Your task to perform on an android device: Clear all items from cart on target. Image 0: 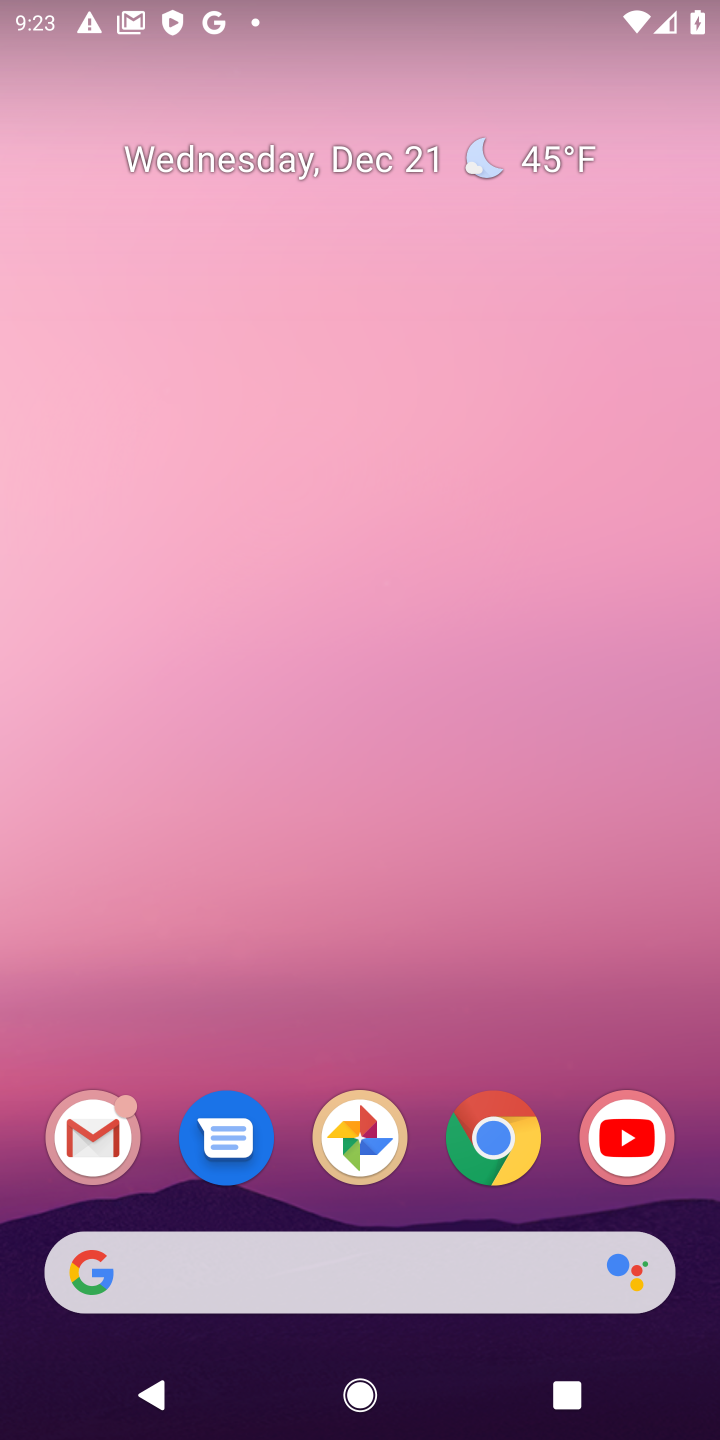
Step 0: click (498, 1152)
Your task to perform on an android device: Clear all items from cart on target. Image 1: 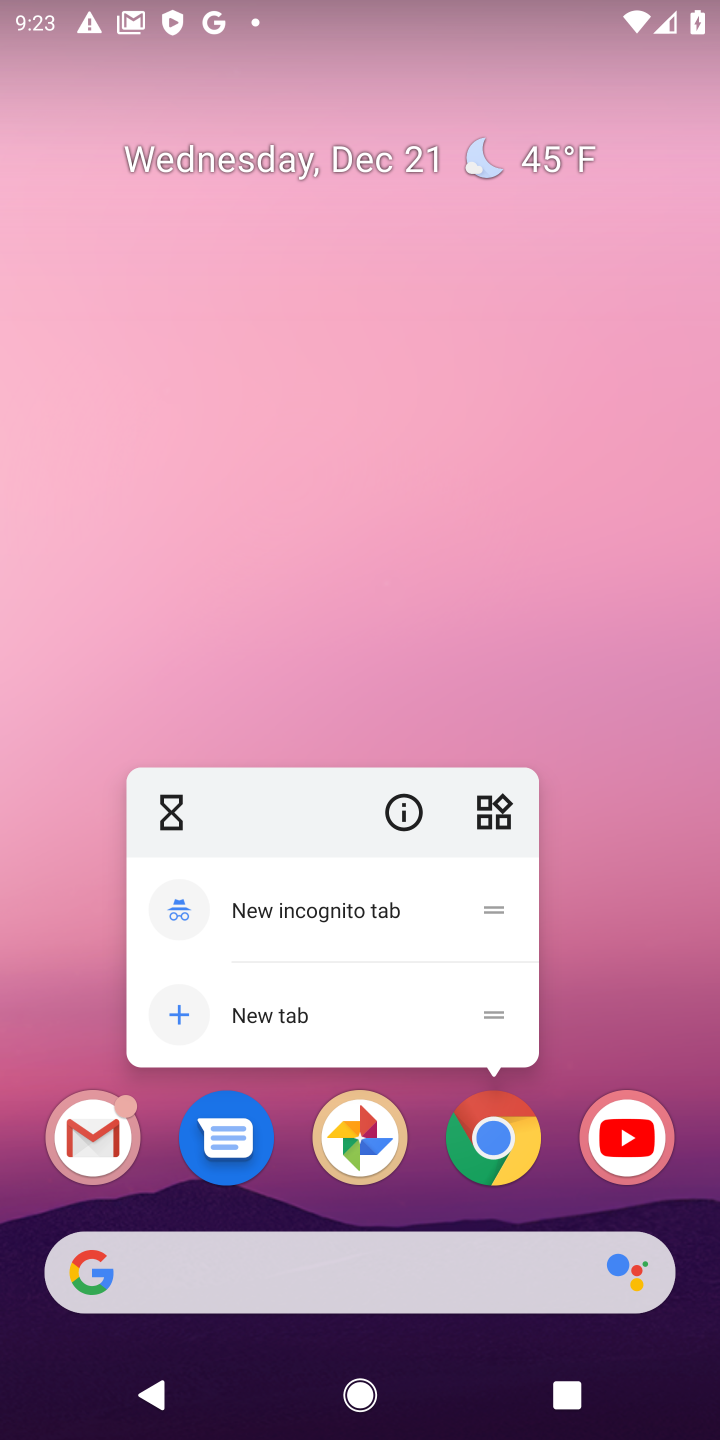
Step 1: click (498, 1152)
Your task to perform on an android device: Clear all items from cart on target. Image 2: 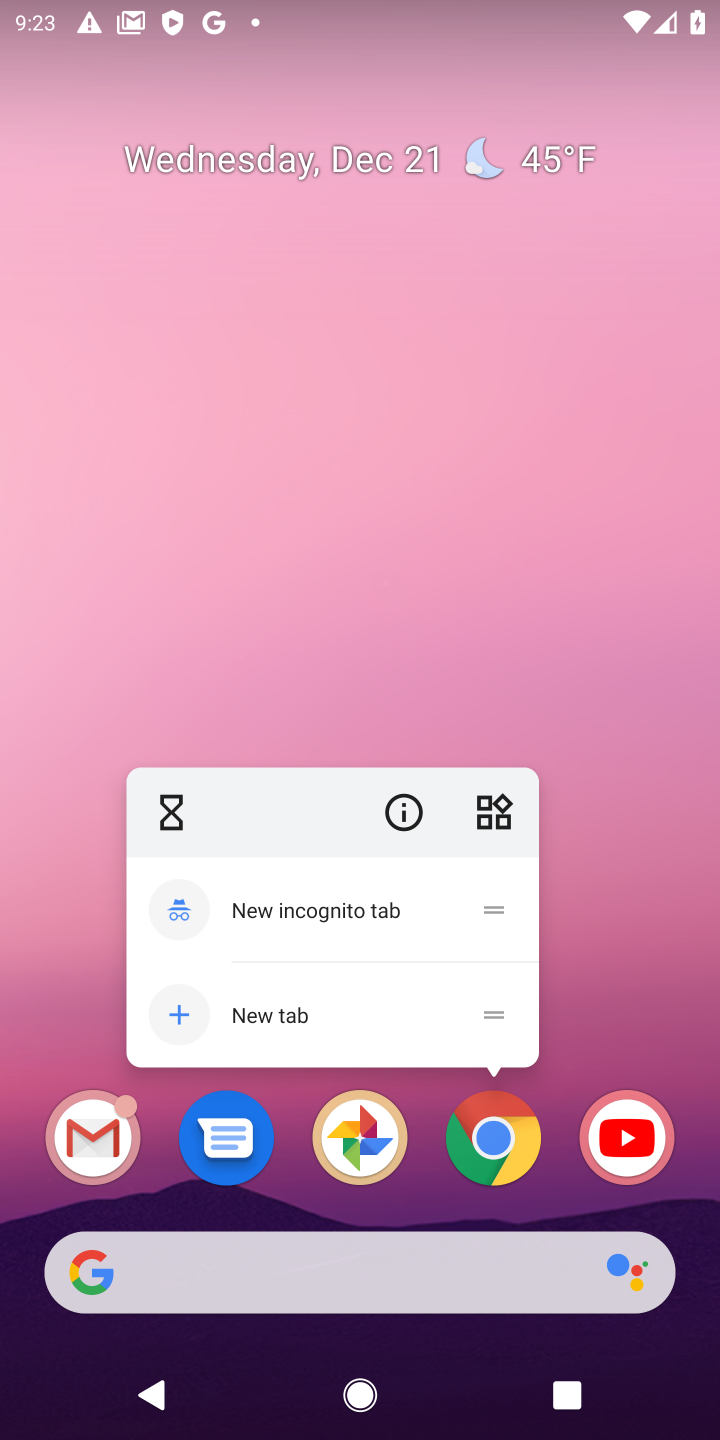
Step 2: click (498, 1152)
Your task to perform on an android device: Clear all items from cart on target. Image 3: 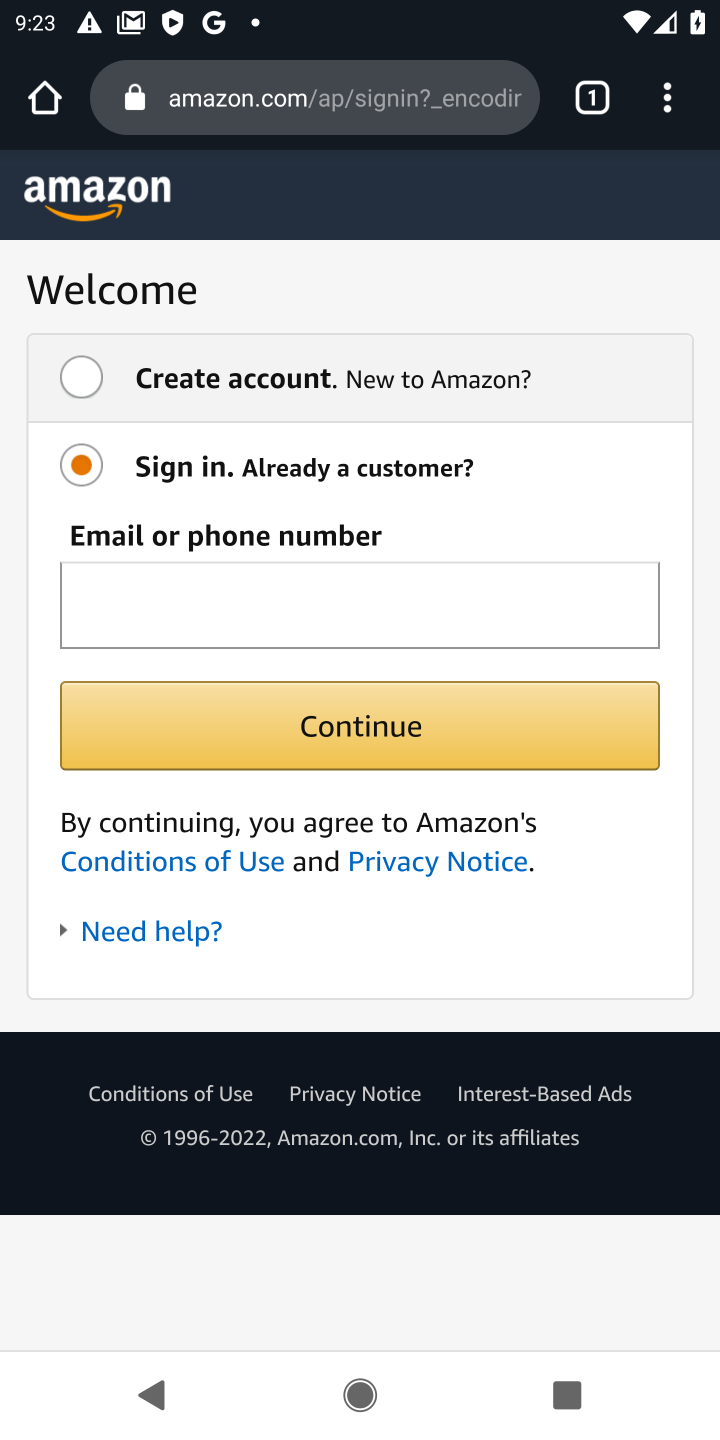
Step 3: click (235, 104)
Your task to perform on an android device: Clear all items from cart on target. Image 4: 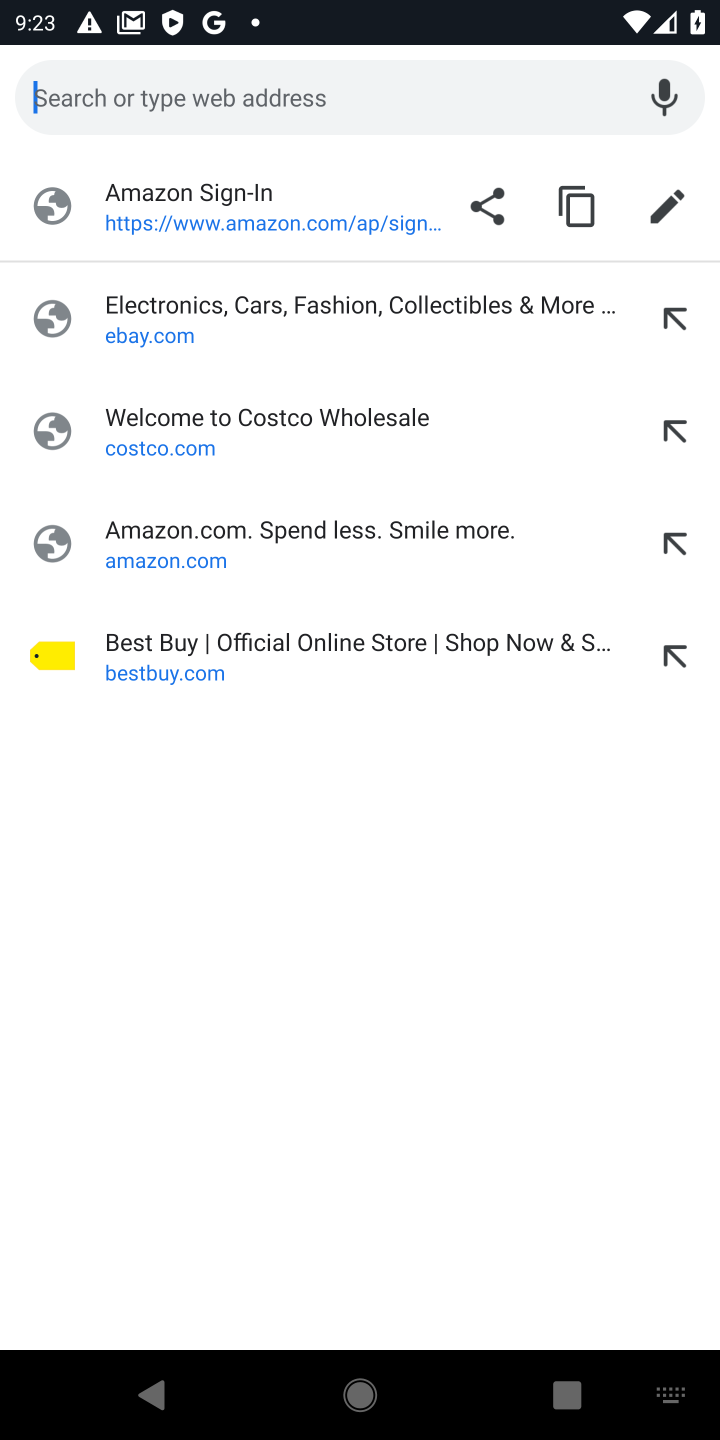
Step 4: type "target.com"
Your task to perform on an android device: Clear all items from cart on target. Image 5: 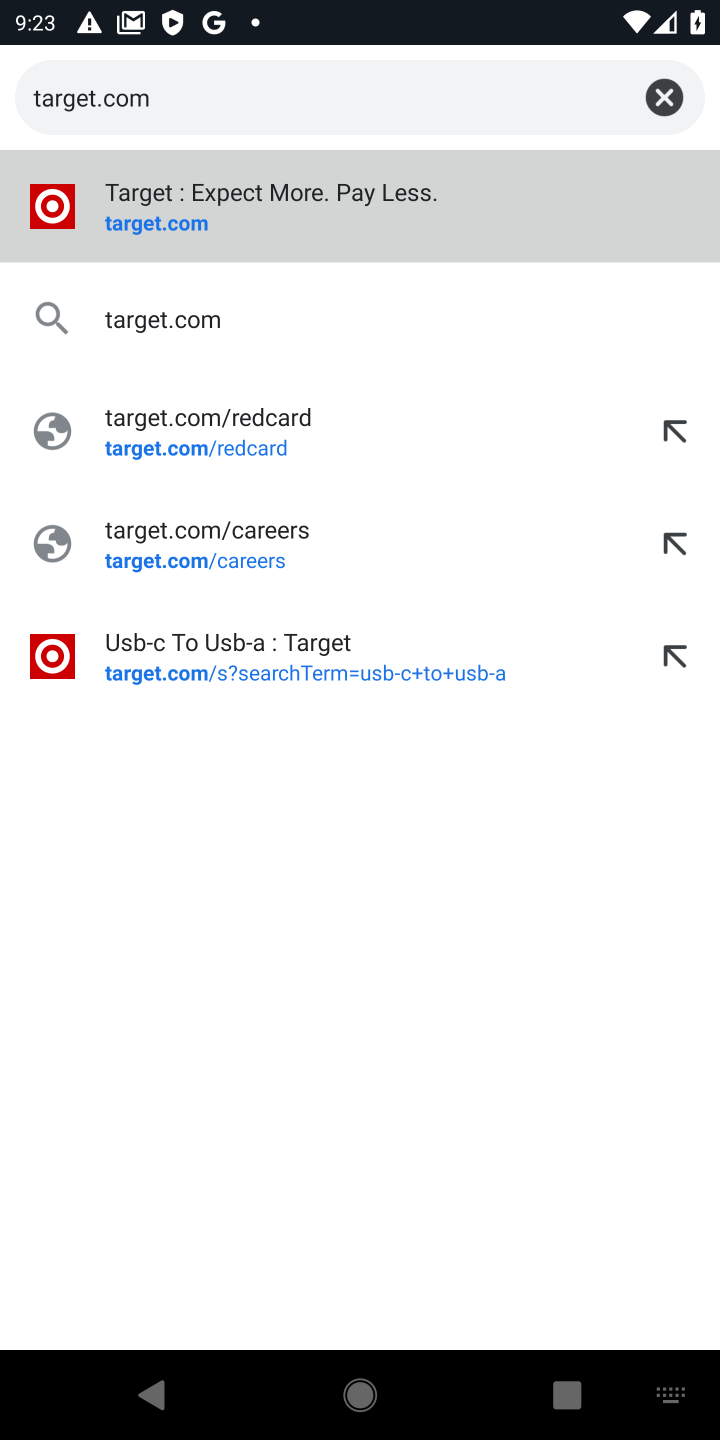
Step 5: click (134, 207)
Your task to perform on an android device: Clear all items from cart on target. Image 6: 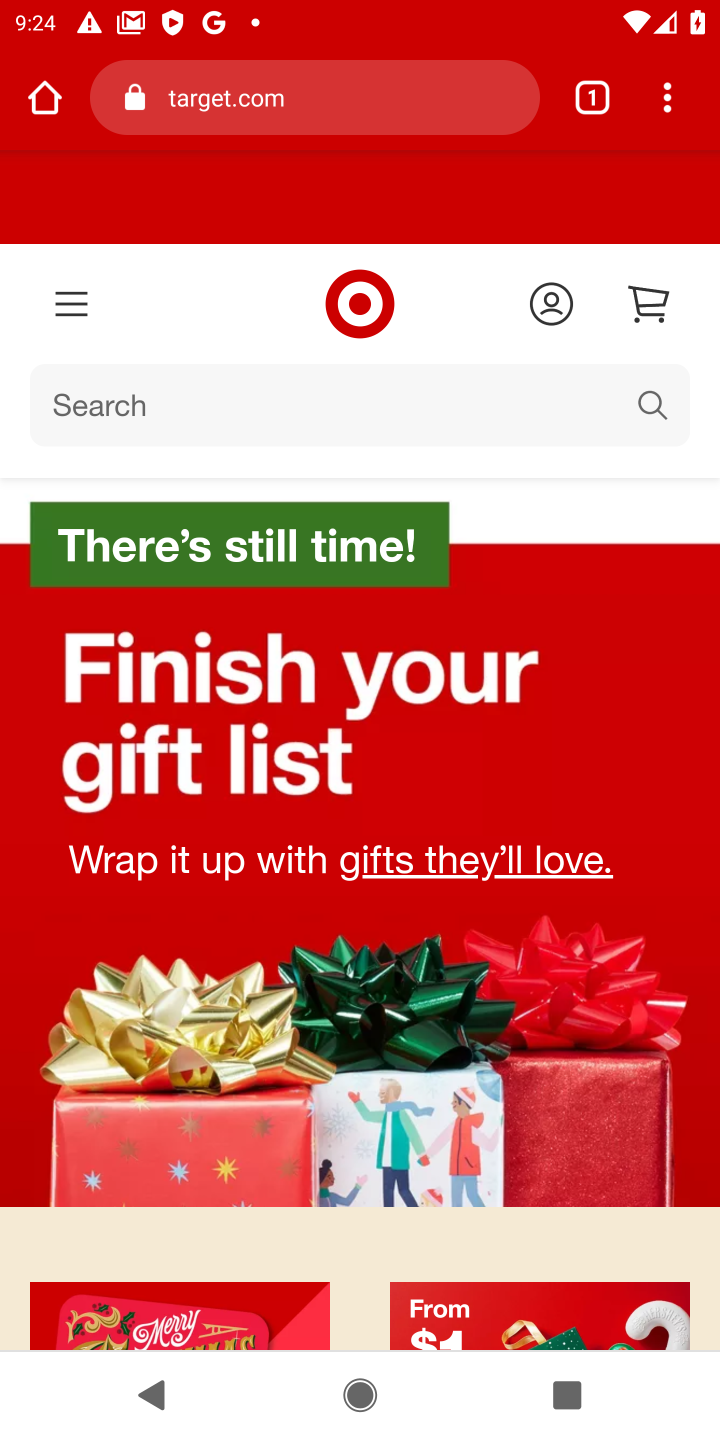
Step 6: click (661, 309)
Your task to perform on an android device: Clear all items from cart on target. Image 7: 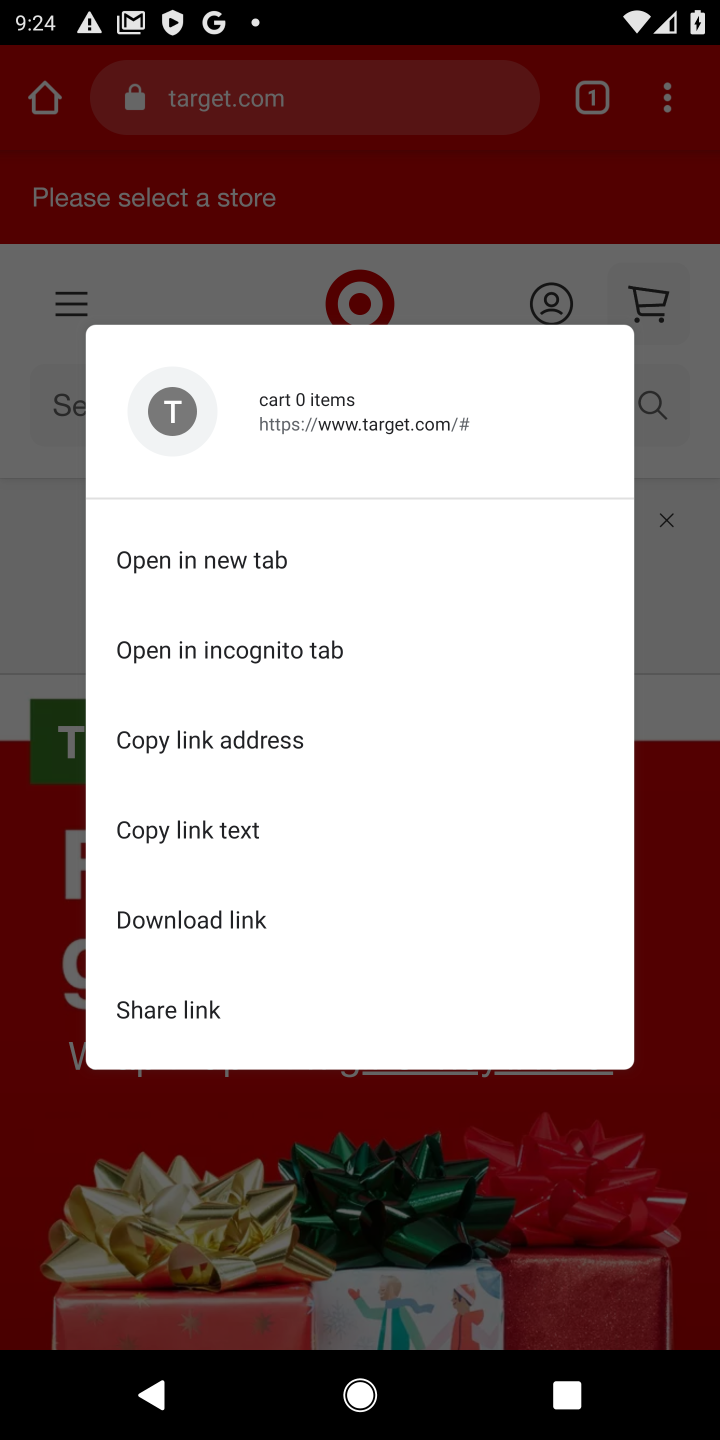
Step 7: click (661, 309)
Your task to perform on an android device: Clear all items from cart on target. Image 8: 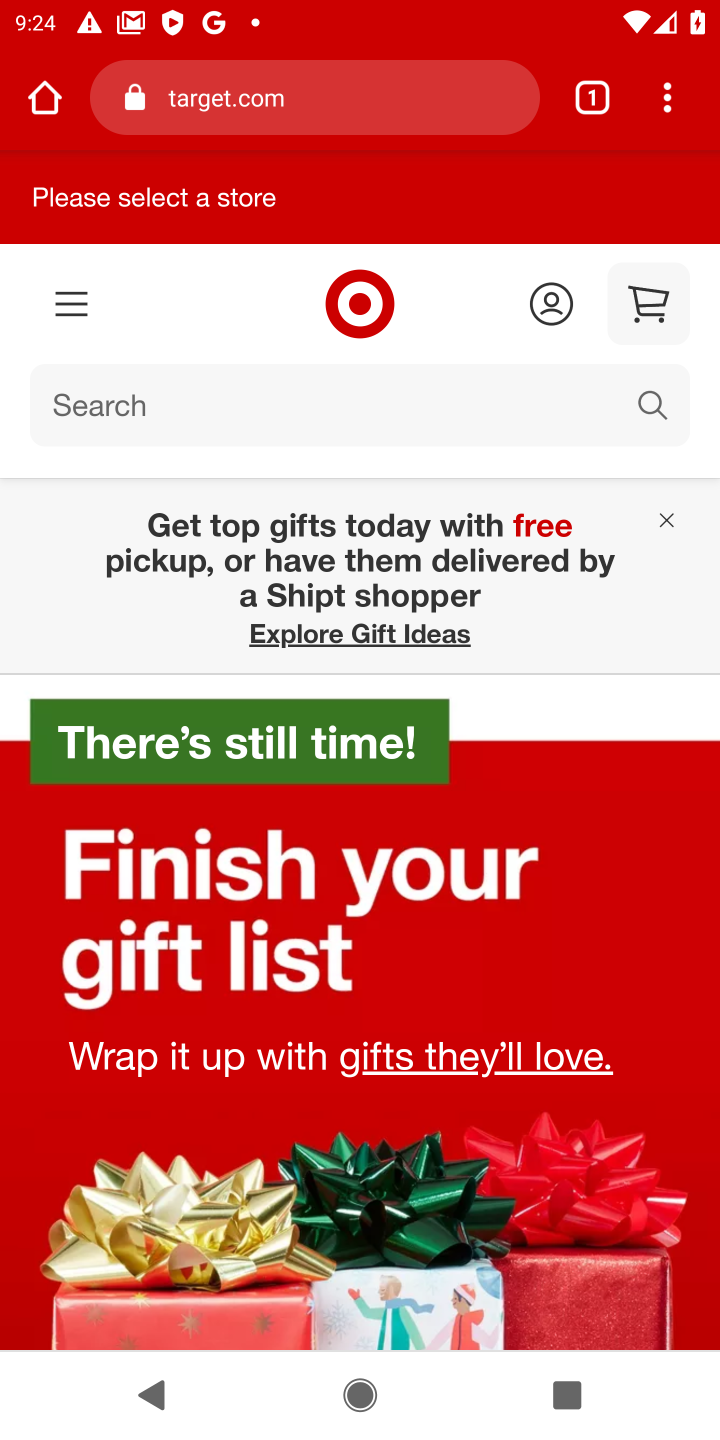
Step 8: click (661, 309)
Your task to perform on an android device: Clear all items from cart on target. Image 9: 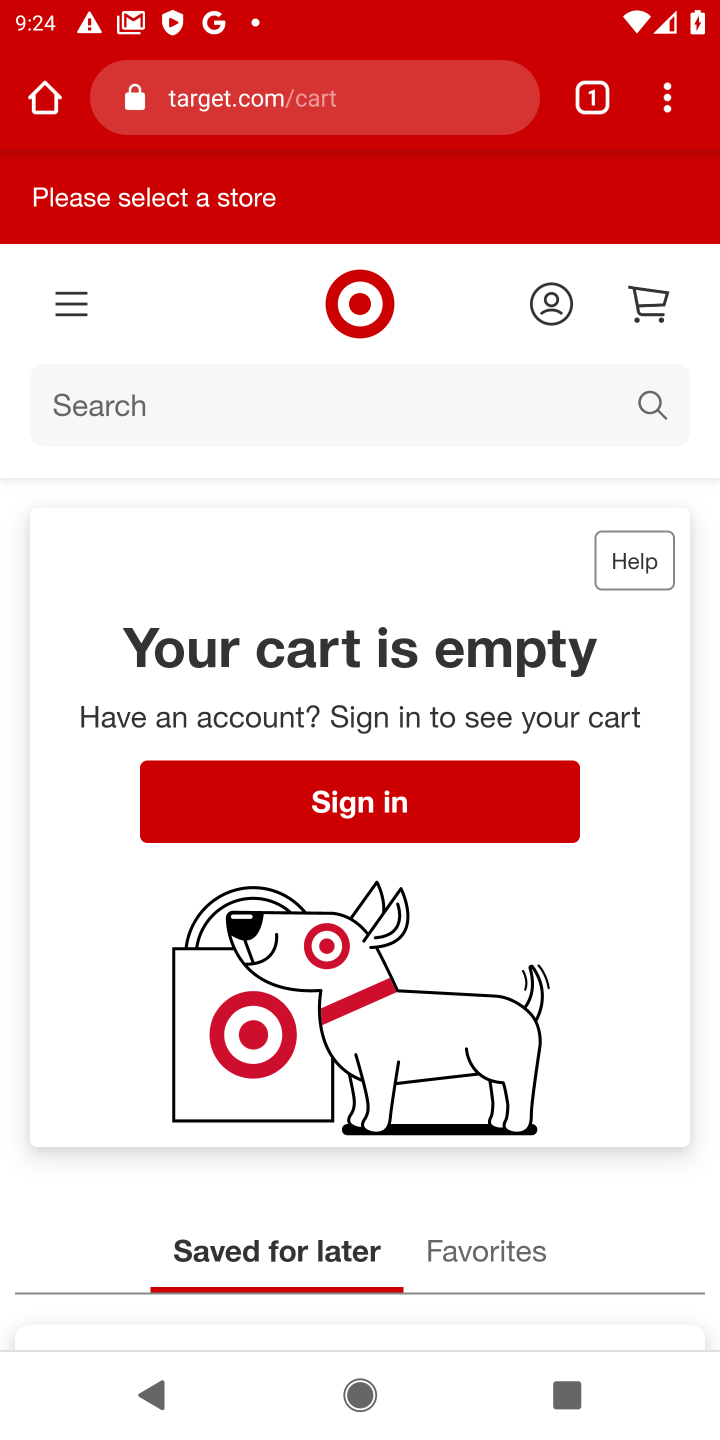
Step 9: task complete